Your task to perform on an android device: change the clock display to digital Image 0: 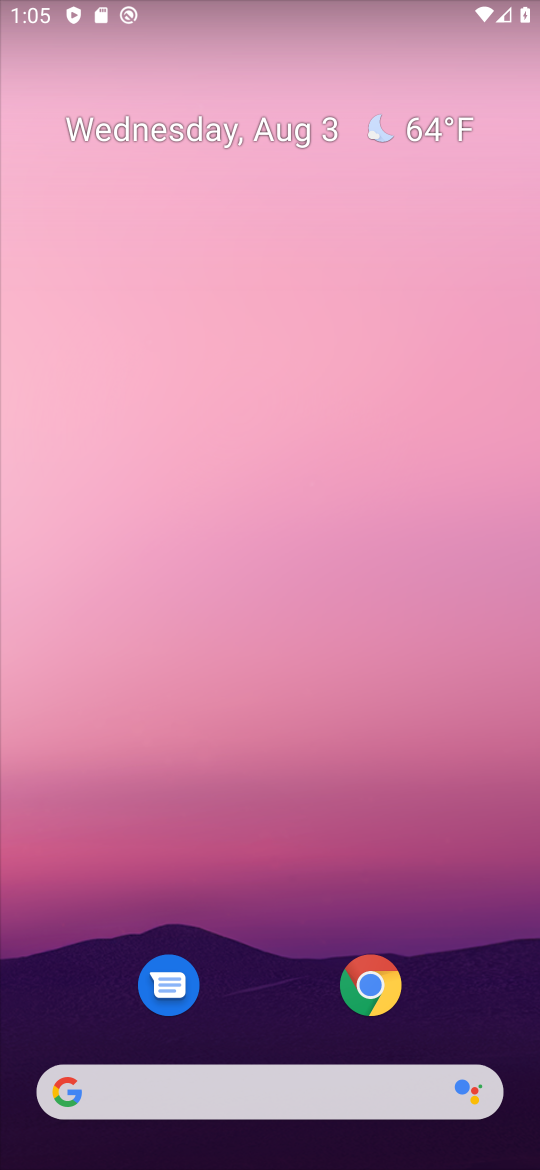
Step 0: drag from (277, 1010) to (360, 18)
Your task to perform on an android device: change the clock display to digital Image 1: 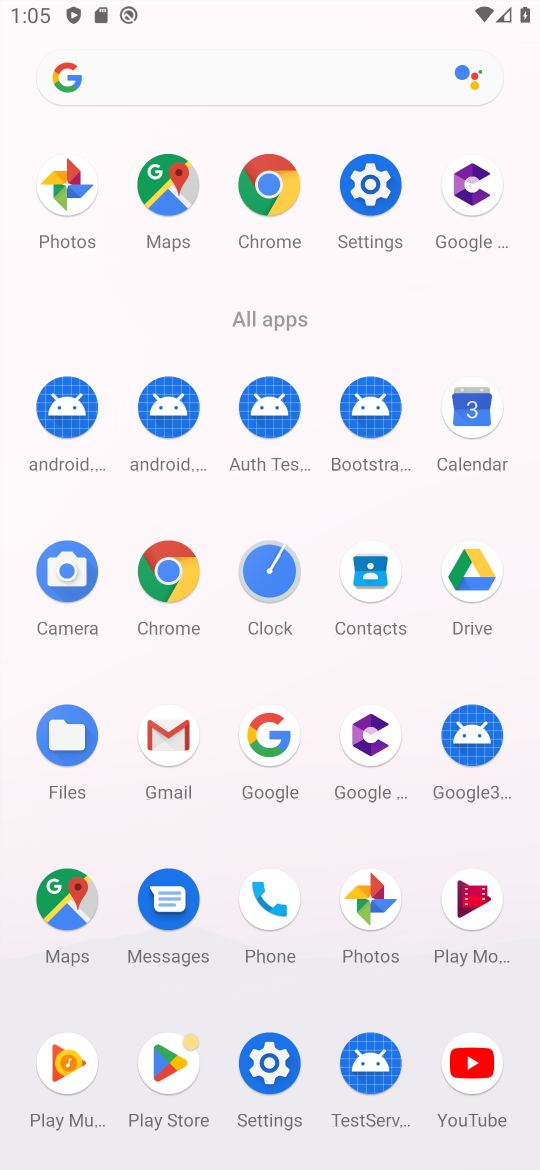
Step 1: click (265, 559)
Your task to perform on an android device: change the clock display to digital Image 2: 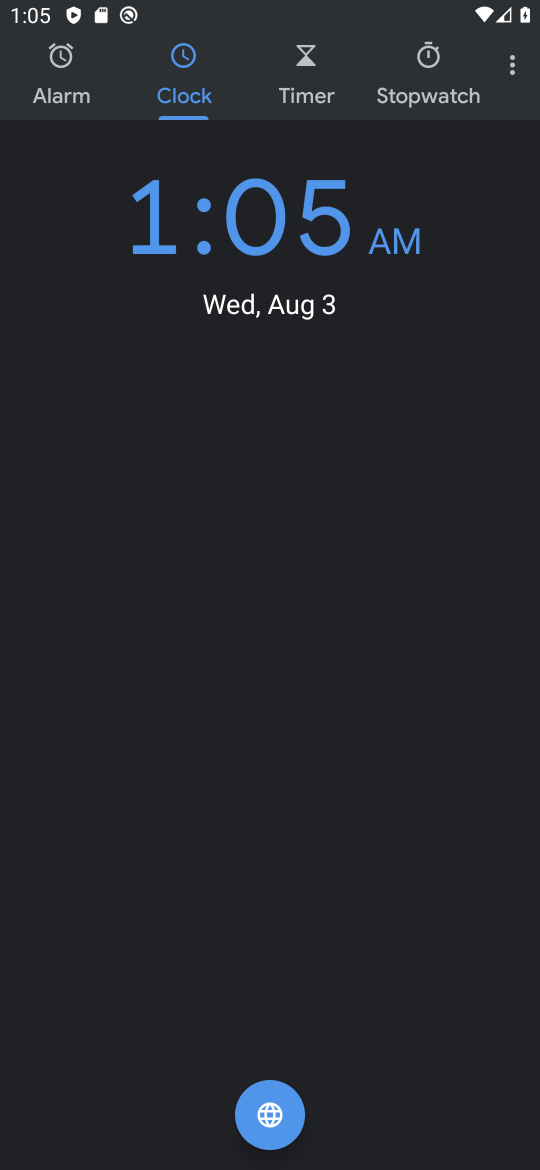
Step 2: click (503, 65)
Your task to perform on an android device: change the clock display to digital Image 3: 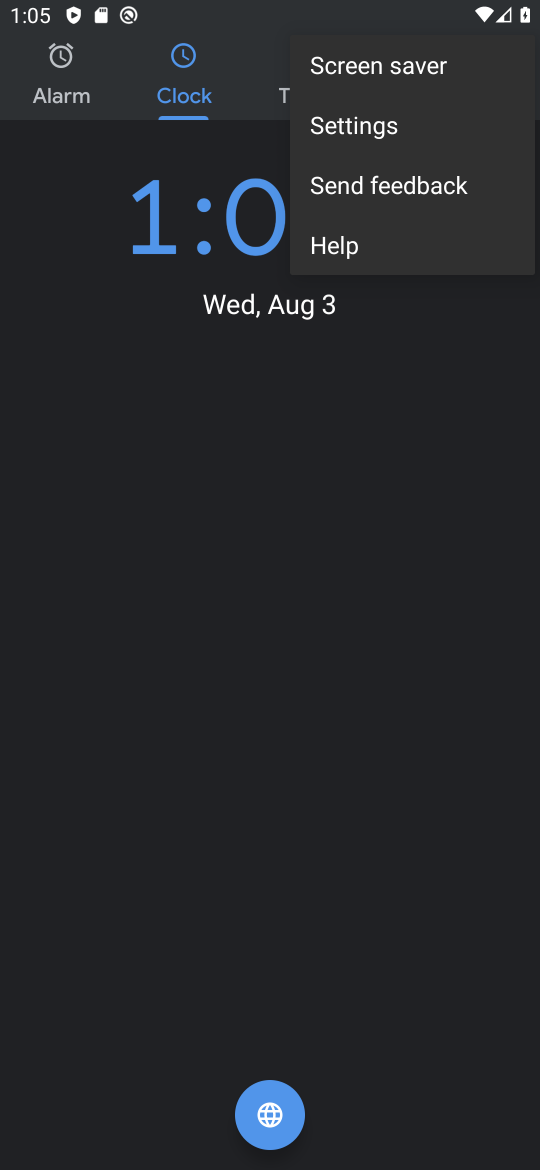
Step 3: click (394, 123)
Your task to perform on an android device: change the clock display to digital Image 4: 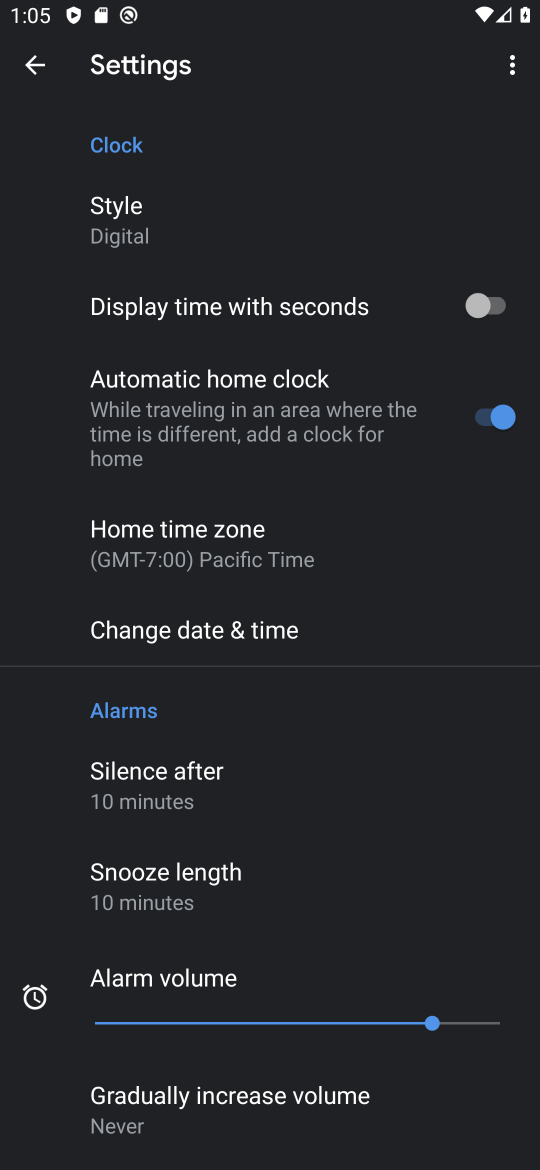
Step 4: click (197, 214)
Your task to perform on an android device: change the clock display to digital Image 5: 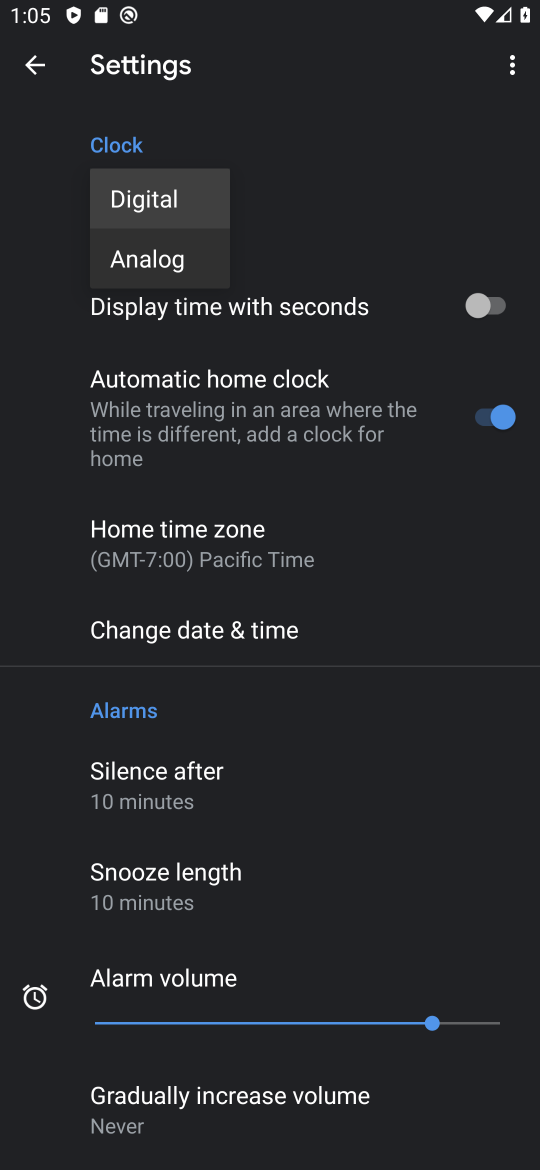
Step 5: click (191, 192)
Your task to perform on an android device: change the clock display to digital Image 6: 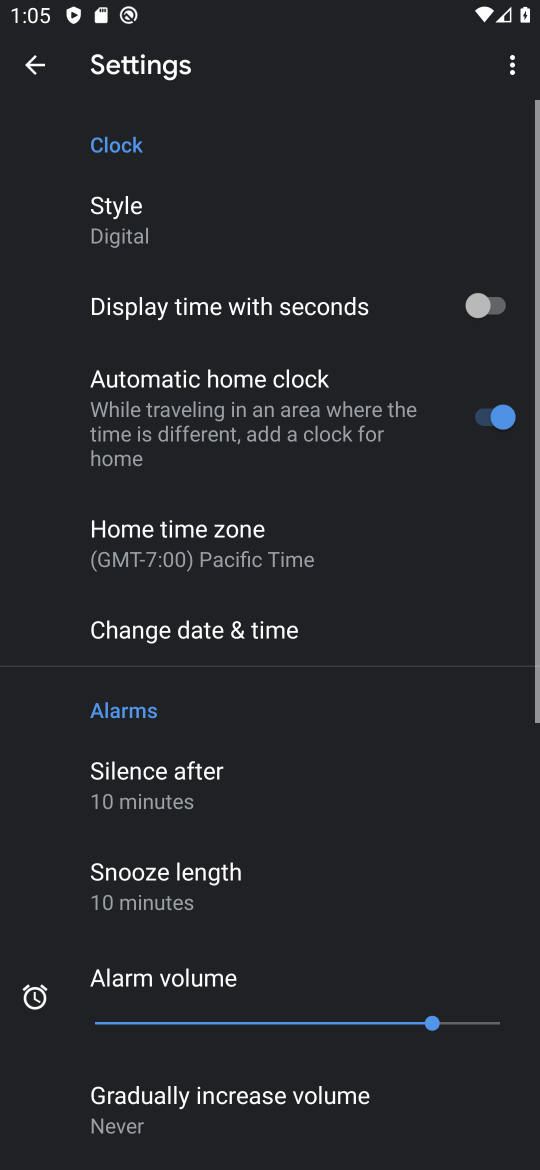
Step 6: task complete